Your task to perform on an android device: Open Yahoo.com Image 0: 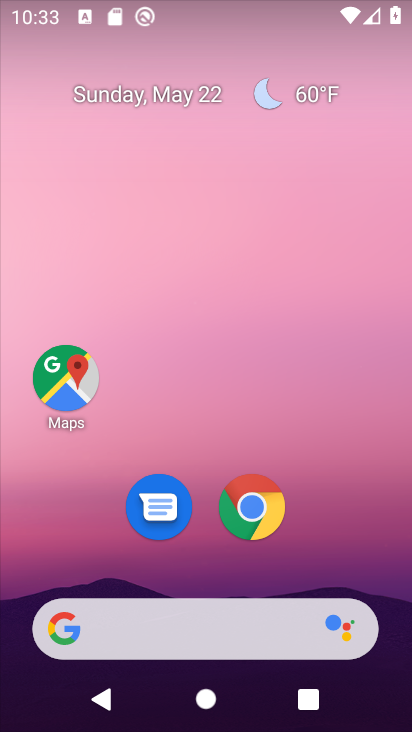
Step 0: click (265, 501)
Your task to perform on an android device: Open Yahoo.com Image 1: 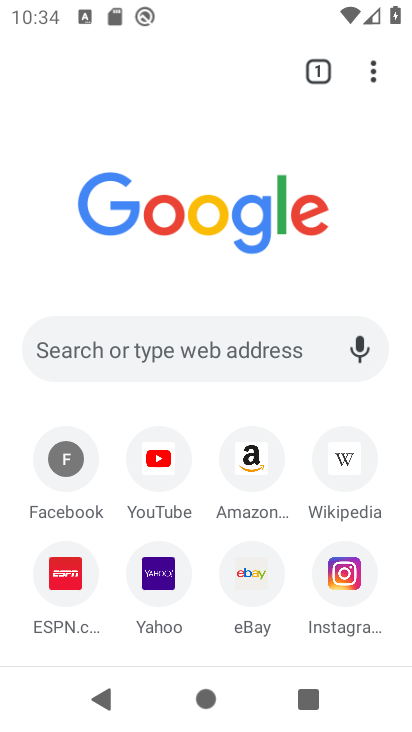
Step 1: click (172, 585)
Your task to perform on an android device: Open Yahoo.com Image 2: 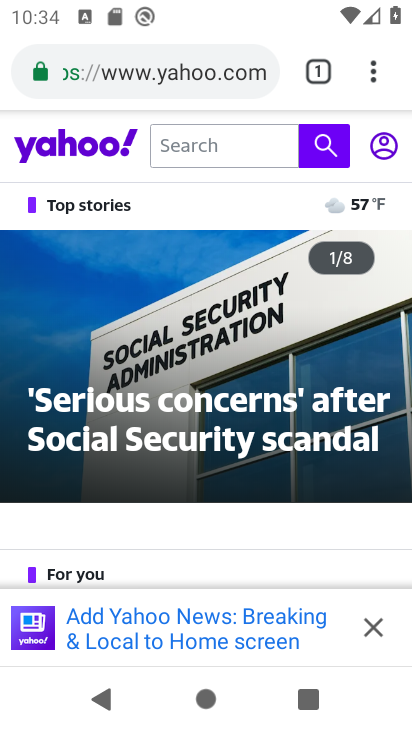
Step 2: task complete